Your task to perform on an android device: Go to Maps Image 0: 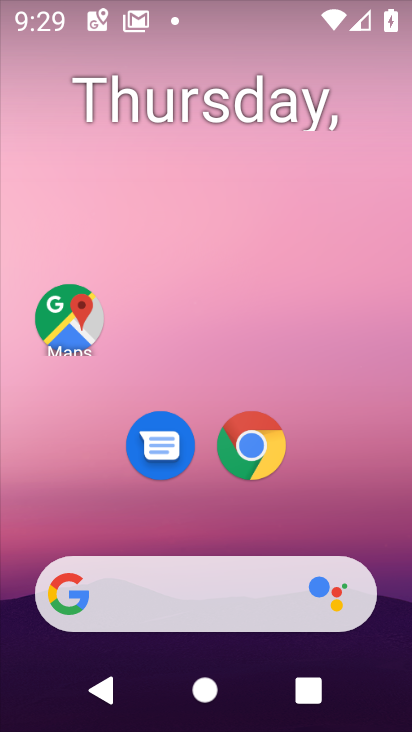
Step 0: click (60, 328)
Your task to perform on an android device: Go to Maps Image 1: 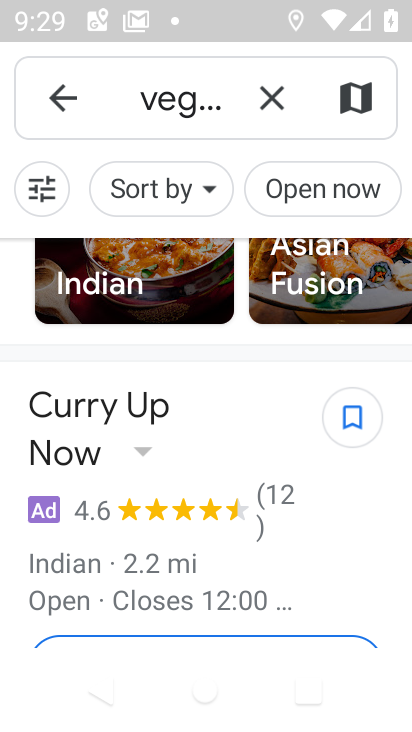
Step 1: click (61, 95)
Your task to perform on an android device: Go to Maps Image 2: 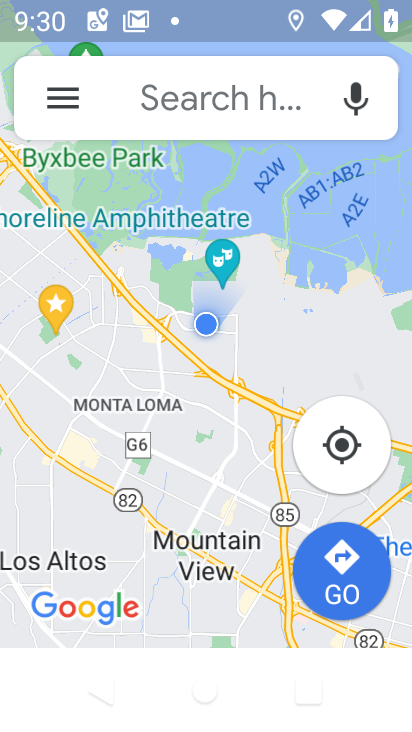
Step 2: task complete